Your task to perform on an android device: open device folders in google photos Image 0: 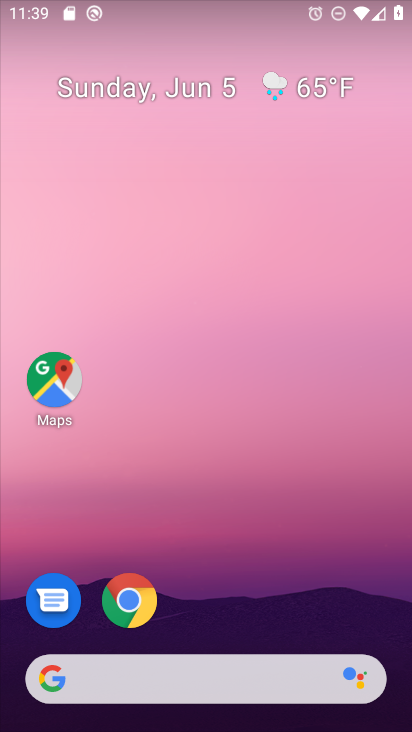
Step 0: drag from (358, 404) to (295, 147)
Your task to perform on an android device: open device folders in google photos Image 1: 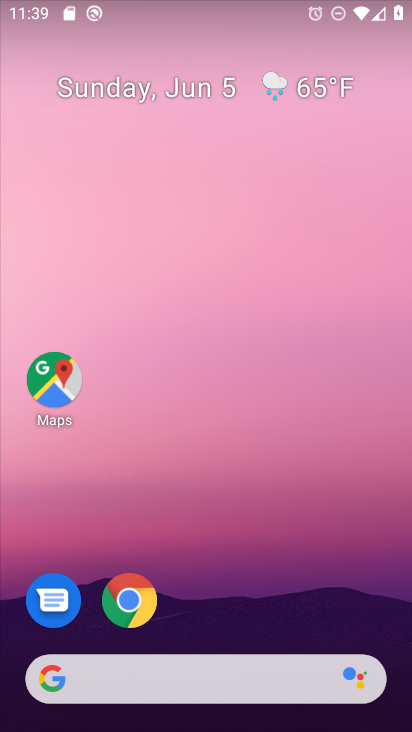
Step 1: drag from (378, 612) to (260, 122)
Your task to perform on an android device: open device folders in google photos Image 2: 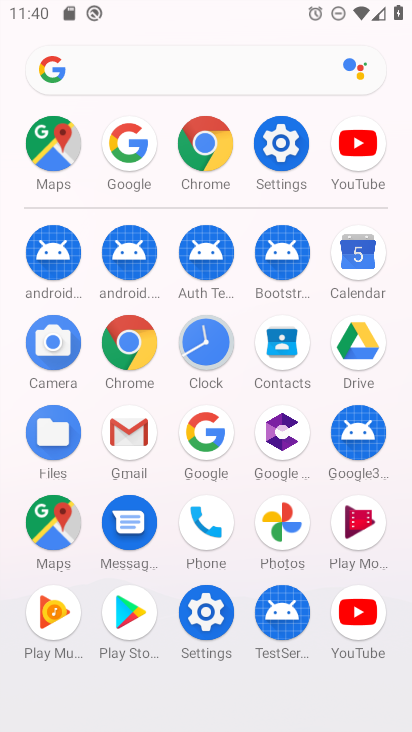
Step 2: click (294, 512)
Your task to perform on an android device: open device folders in google photos Image 3: 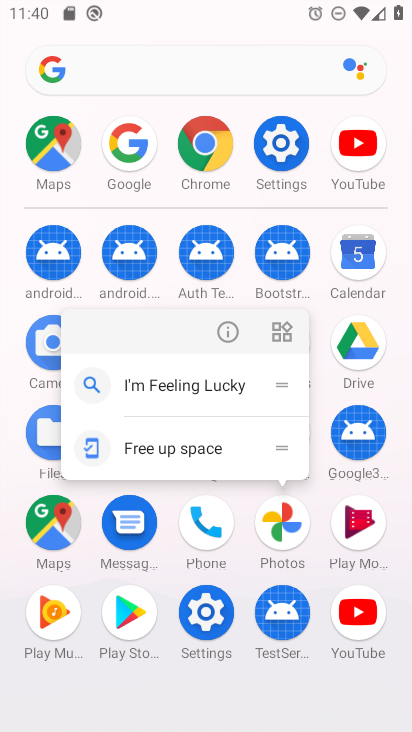
Step 3: click (294, 512)
Your task to perform on an android device: open device folders in google photos Image 4: 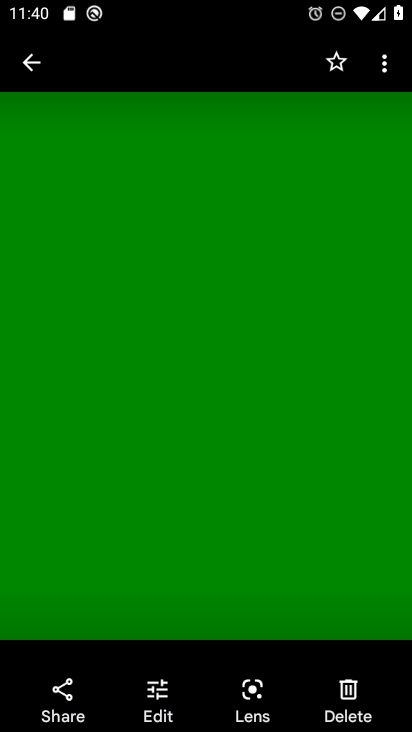
Step 4: task complete